Your task to perform on an android device: Go to calendar. Show me events next week Image 0: 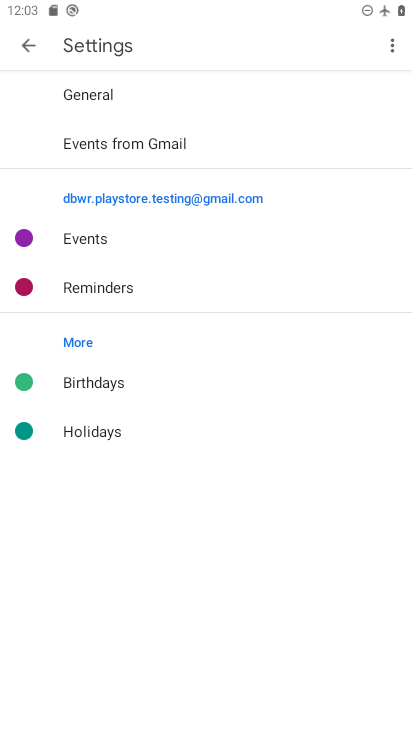
Step 0: press home button
Your task to perform on an android device: Go to calendar. Show me events next week Image 1: 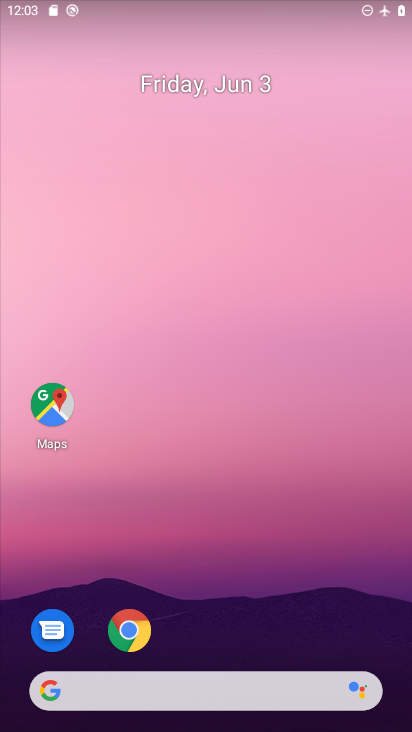
Step 1: drag from (232, 640) to (187, 219)
Your task to perform on an android device: Go to calendar. Show me events next week Image 2: 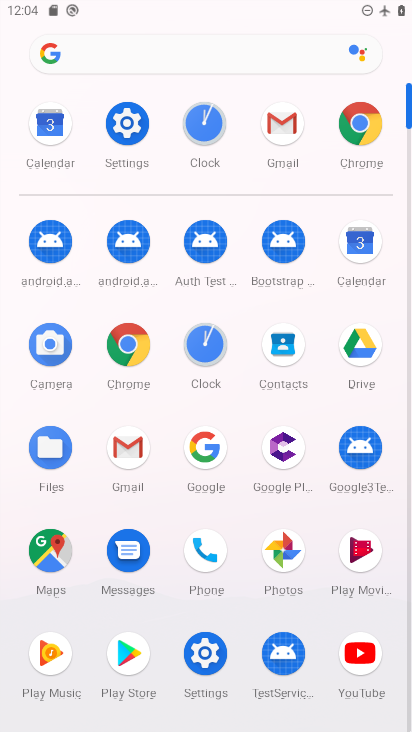
Step 2: click (358, 256)
Your task to perform on an android device: Go to calendar. Show me events next week Image 3: 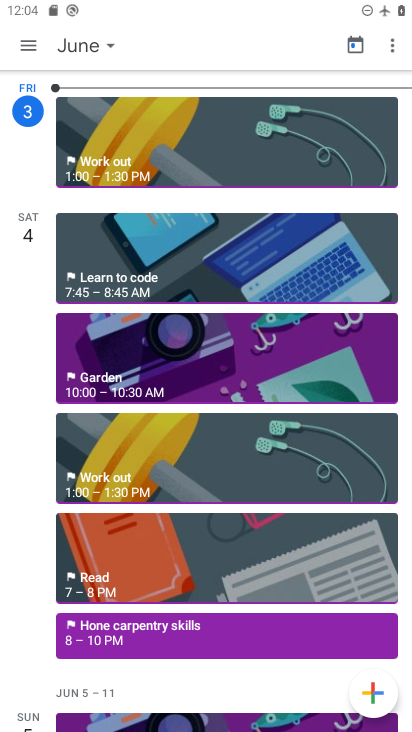
Step 3: click (31, 50)
Your task to perform on an android device: Go to calendar. Show me events next week Image 4: 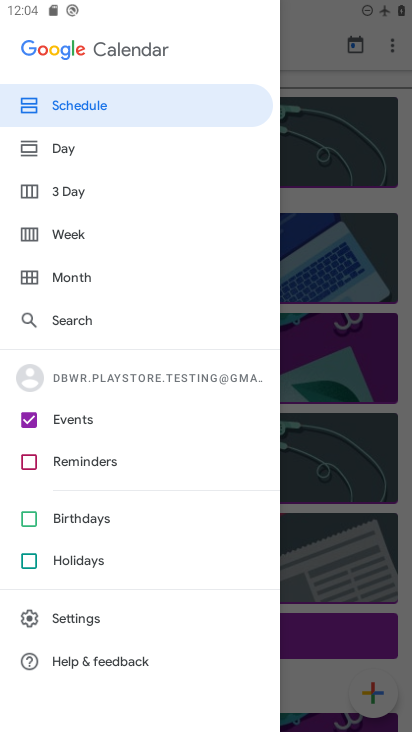
Step 4: click (105, 234)
Your task to perform on an android device: Go to calendar. Show me events next week Image 5: 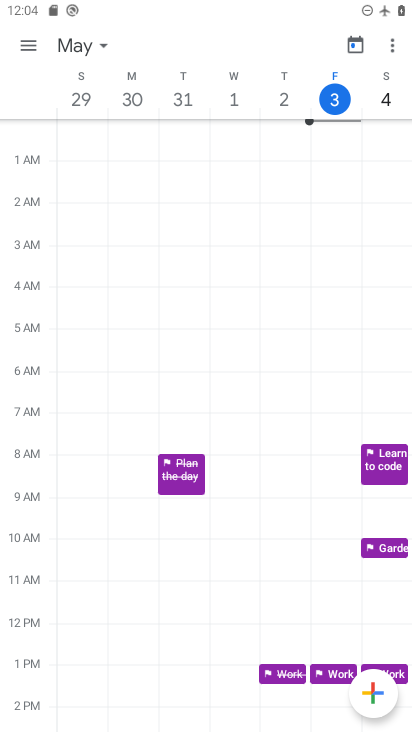
Step 5: click (77, 42)
Your task to perform on an android device: Go to calendar. Show me events next week Image 6: 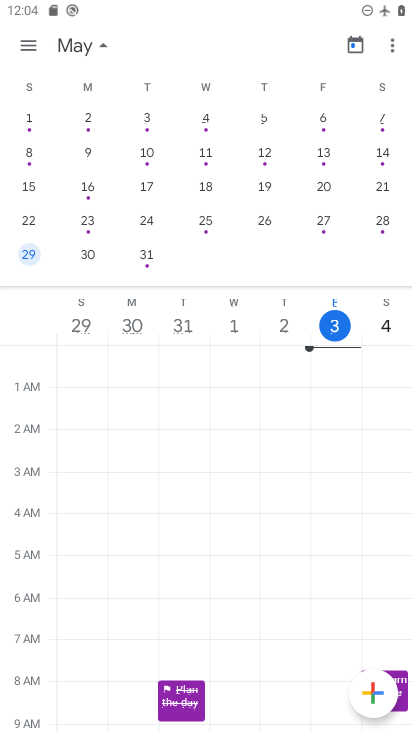
Step 6: drag from (384, 192) to (83, 191)
Your task to perform on an android device: Go to calendar. Show me events next week Image 7: 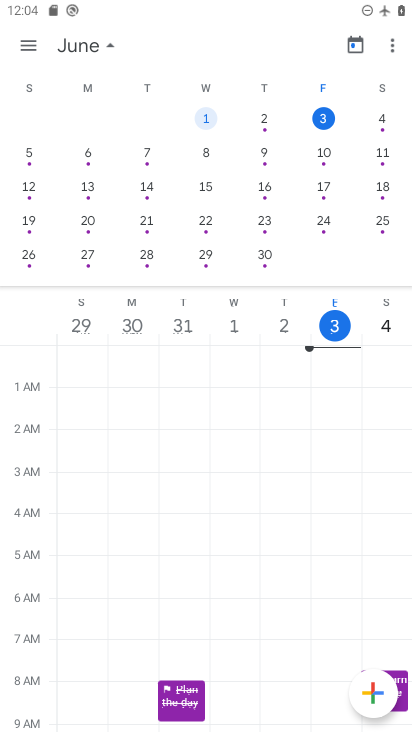
Step 7: click (209, 150)
Your task to perform on an android device: Go to calendar. Show me events next week Image 8: 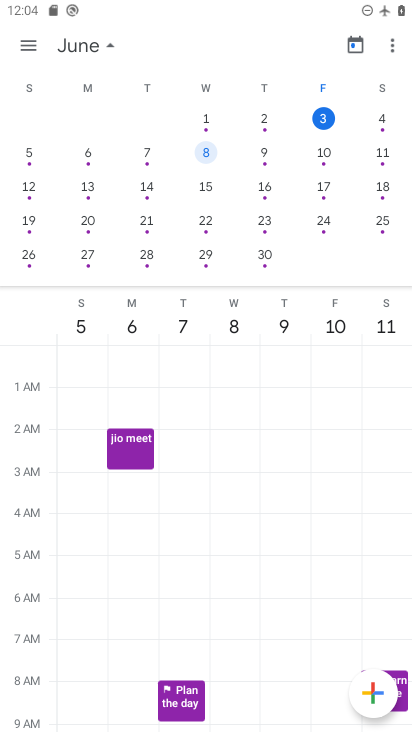
Step 8: task complete